Your task to perform on an android device: Open Chrome and go to settings Image 0: 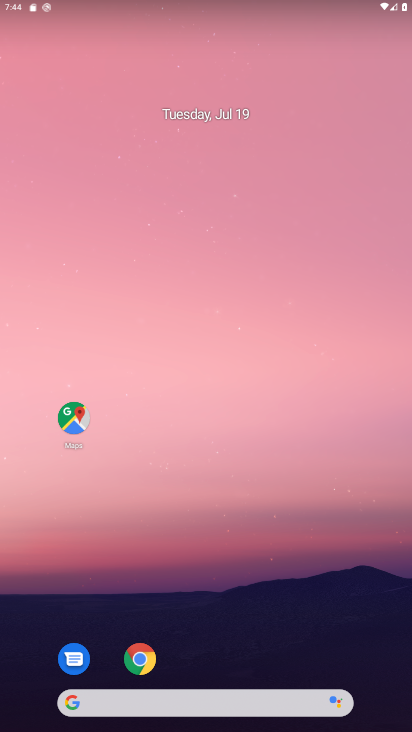
Step 0: click (136, 666)
Your task to perform on an android device: Open Chrome and go to settings Image 1: 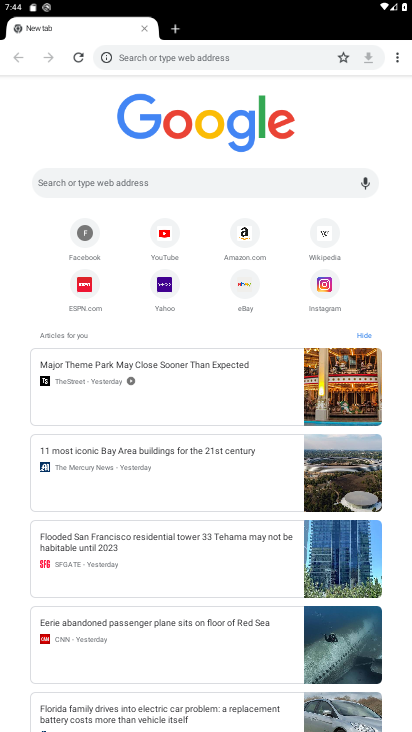
Step 1: click (398, 58)
Your task to perform on an android device: Open Chrome and go to settings Image 2: 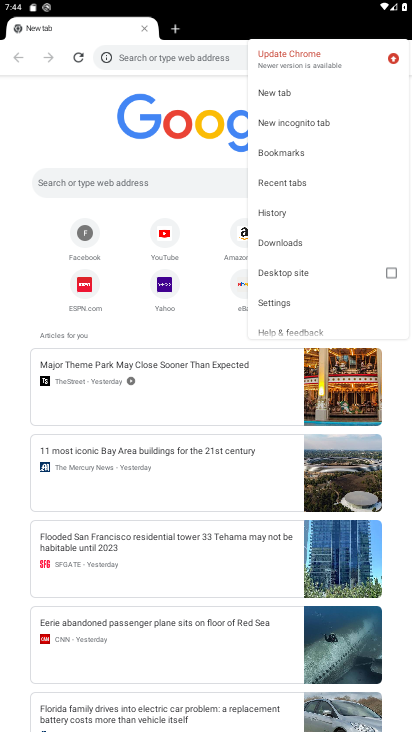
Step 2: click (266, 306)
Your task to perform on an android device: Open Chrome and go to settings Image 3: 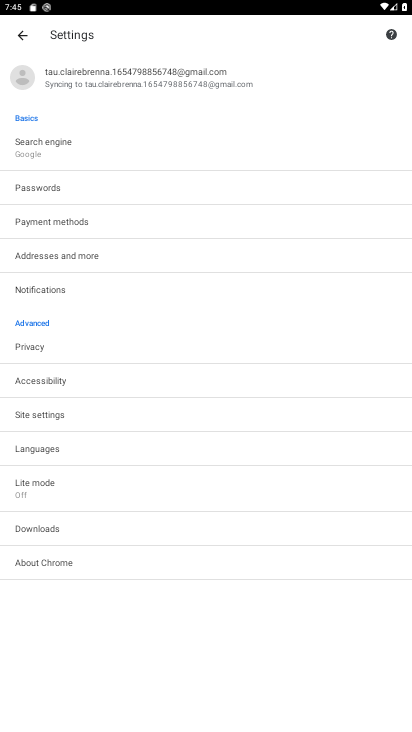
Step 3: task complete